Your task to perform on an android device: read, delete, or share a saved page in the chrome app Image 0: 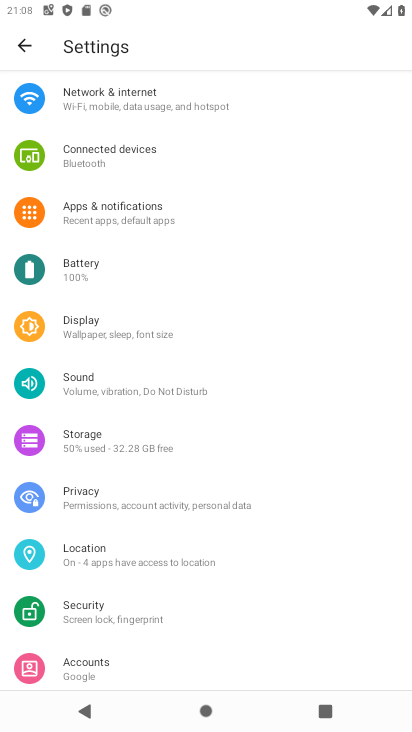
Step 0: press home button
Your task to perform on an android device: read, delete, or share a saved page in the chrome app Image 1: 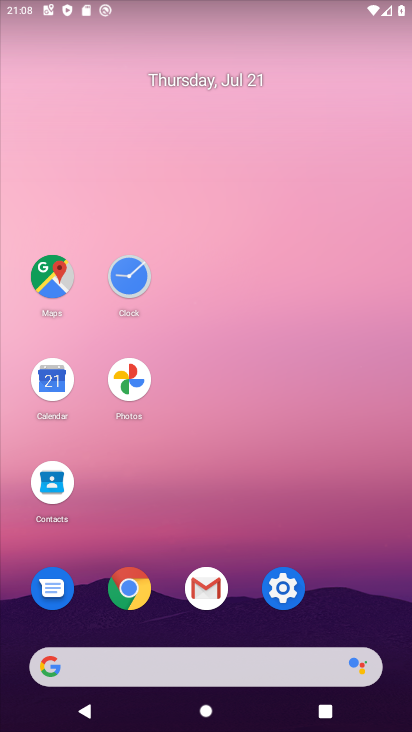
Step 1: click (130, 586)
Your task to perform on an android device: read, delete, or share a saved page in the chrome app Image 2: 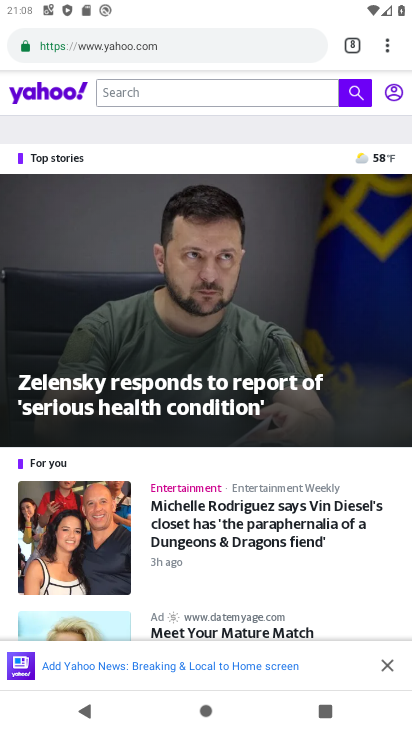
Step 2: click (389, 47)
Your task to perform on an android device: read, delete, or share a saved page in the chrome app Image 3: 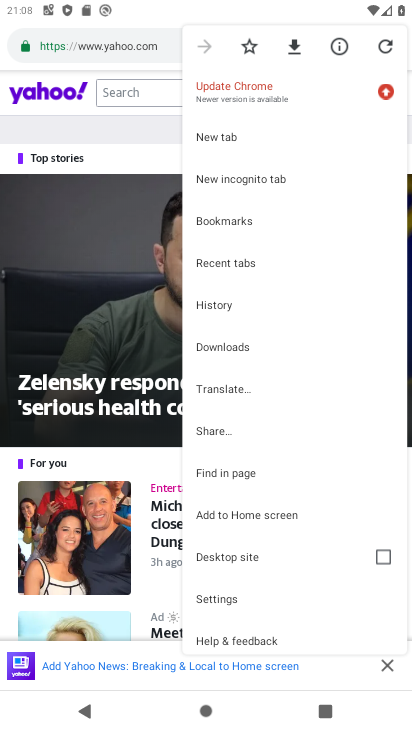
Step 3: click (221, 346)
Your task to perform on an android device: read, delete, or share a saved page in the chrome app Image 4: 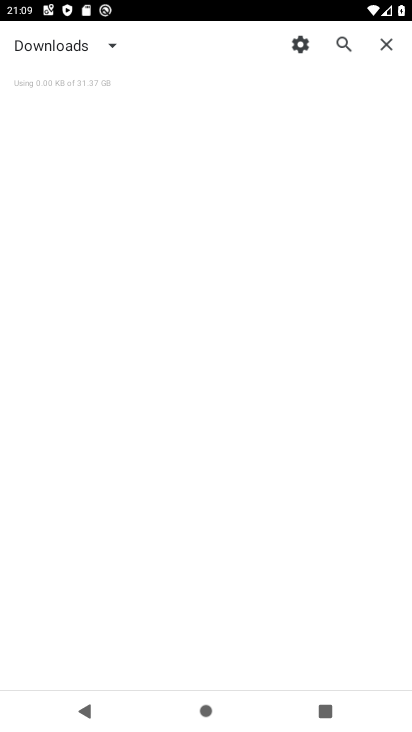
Step 4: task complete